Your task to perform on an android device: open a bookmark in the chrome app Image 0: 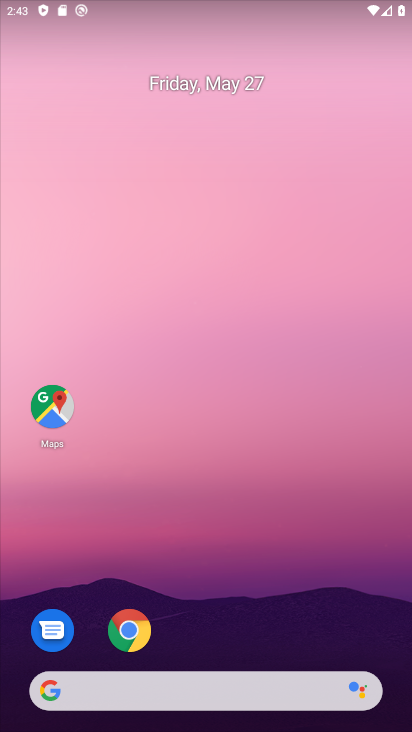
Step 0: click (136, 639)
Your task to perform on an android device: open a bookmark in the chrome app Image 1: 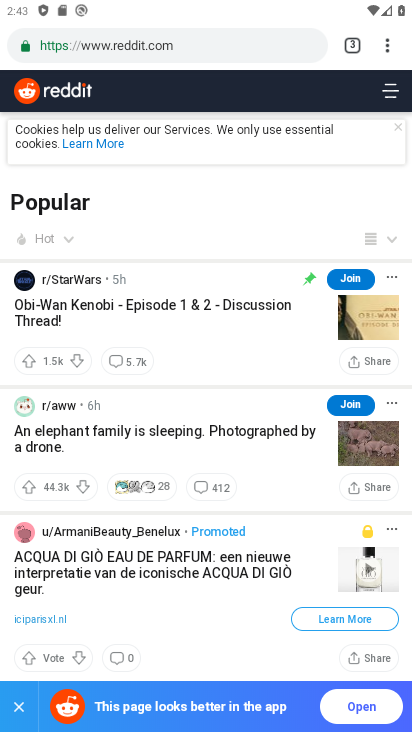
Step 1: click (382, 47)
Your task to perform on an android device: open a bookmark in the chrome app Image 2: 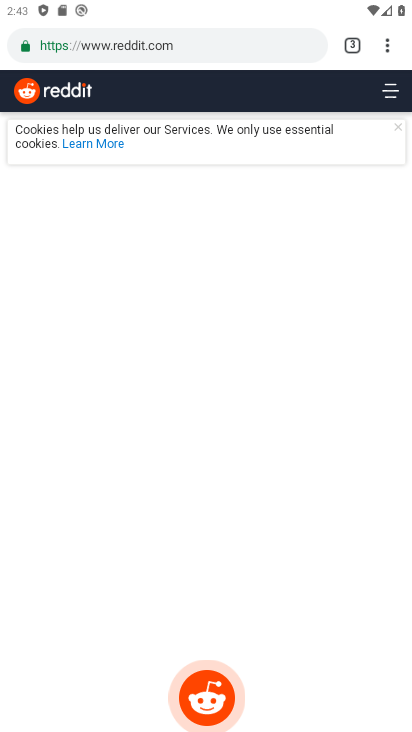
Step 2: task complete